Your task to perform on an android device: turn on translation in the chrome app Image 0: 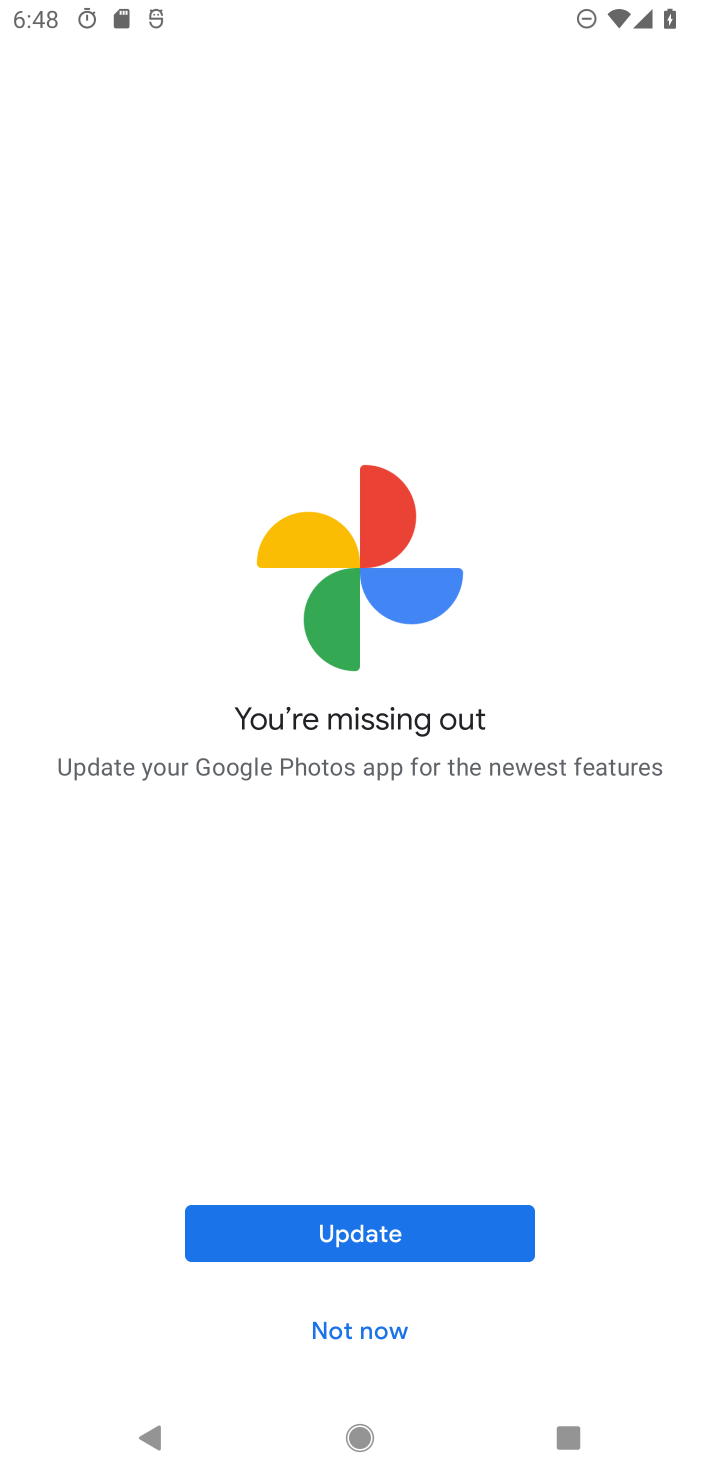
Step 0: press home button
Your task to perform on an android device: turn on translation in the chrome app Image 1: 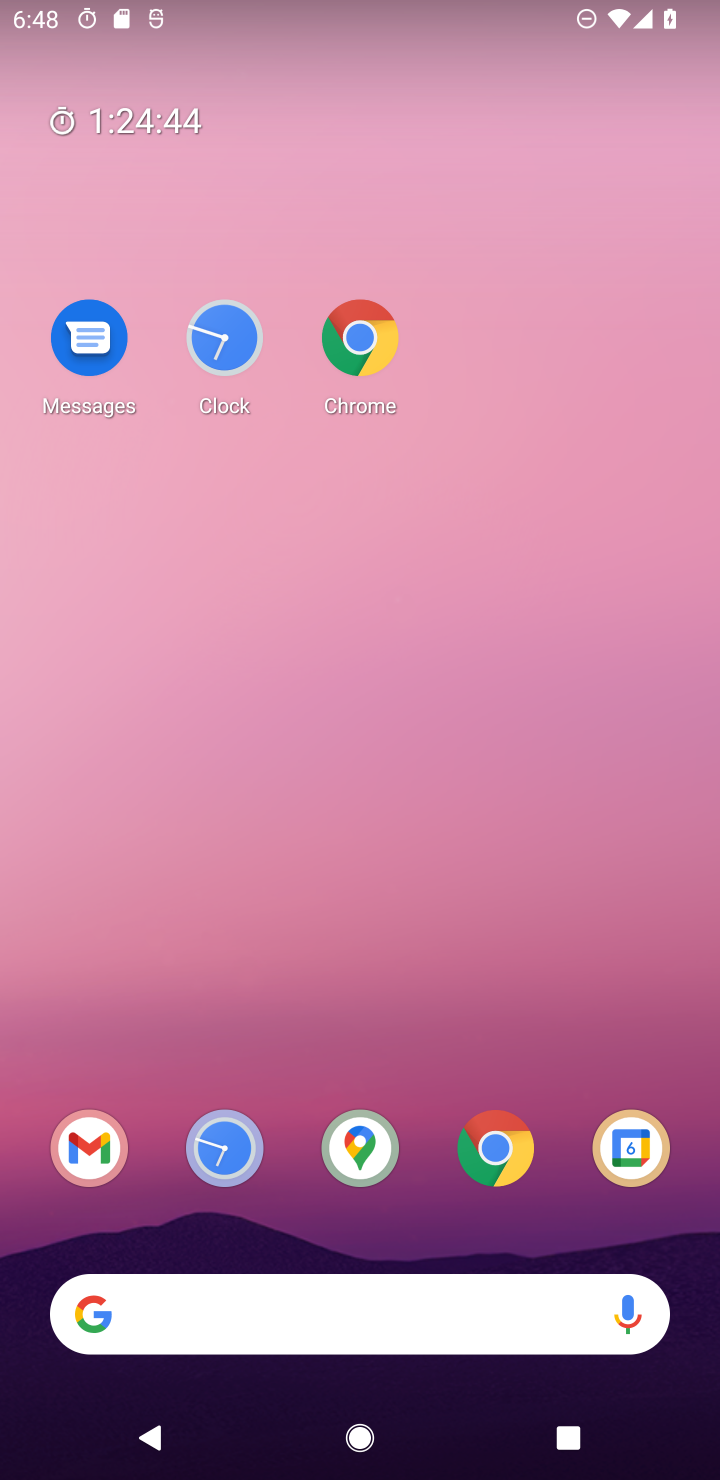
Step 1: drag from (425, 1219) to (386, 284)
Your task to perform on an android device: turn on translation in the chrome app Image 2: 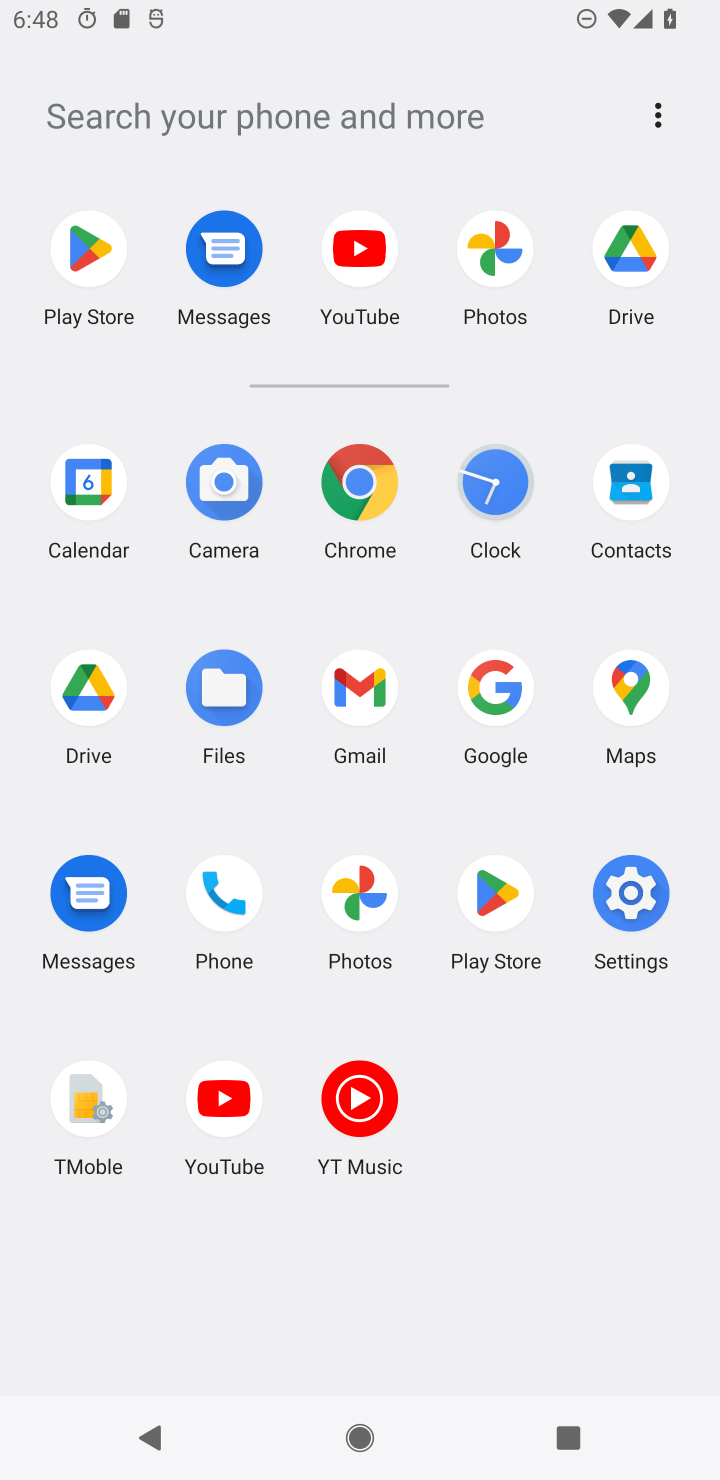
Step 2: click (351, 476)
Your task to perform on an android device: turn on translation in the chrome app Image 3: 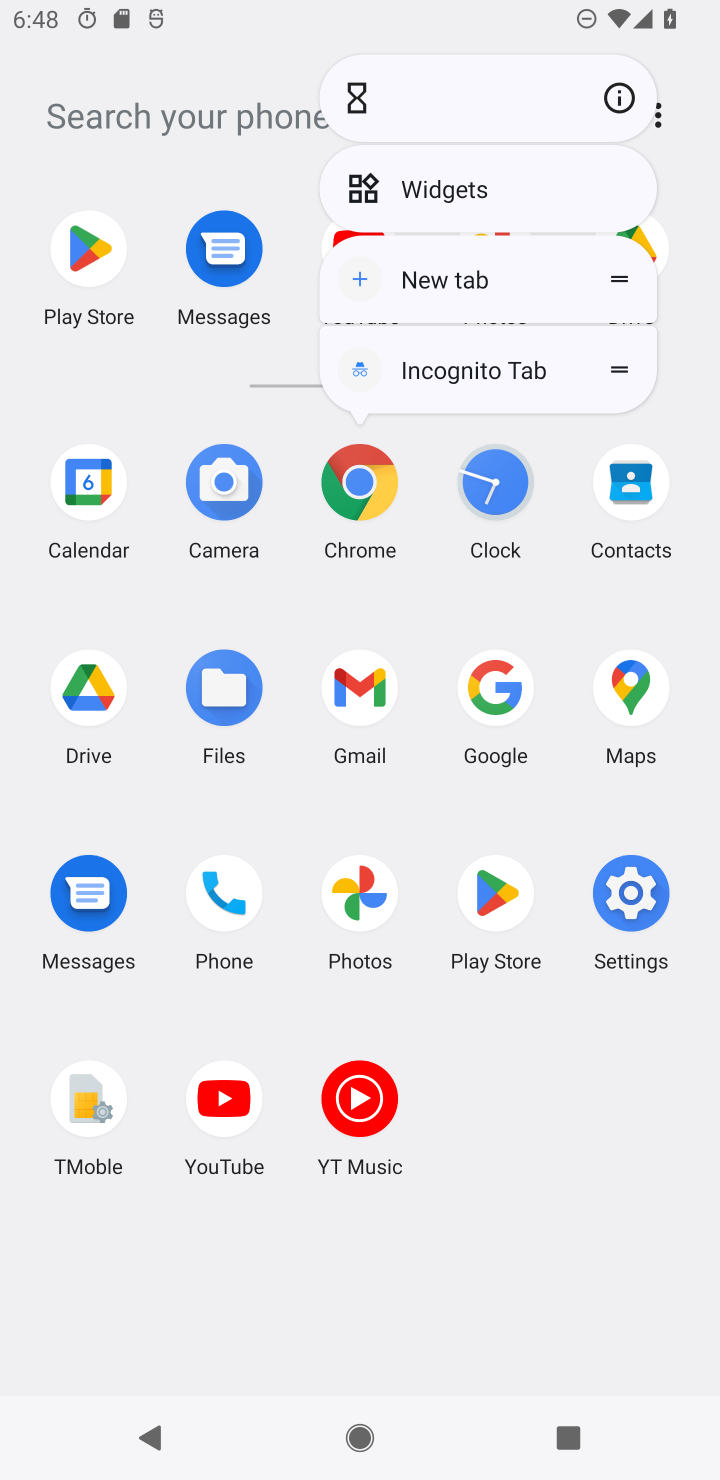
Step 3: click (616, 101)
Your task to perform on an android device: turn on translation in the chrome app Image 4: 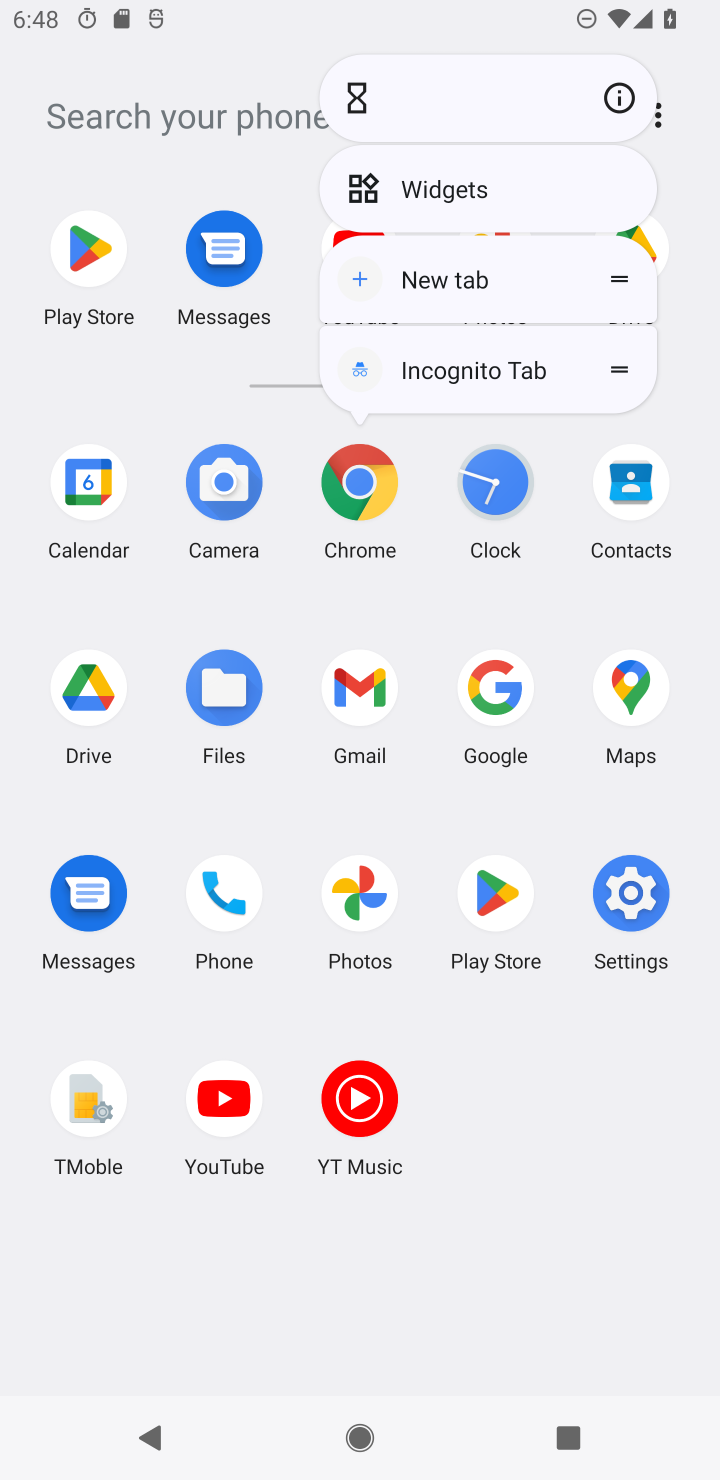
Step 4: click (604, 84)
Your task to perform on an android device: turn on translation in the chrome app Image 5: 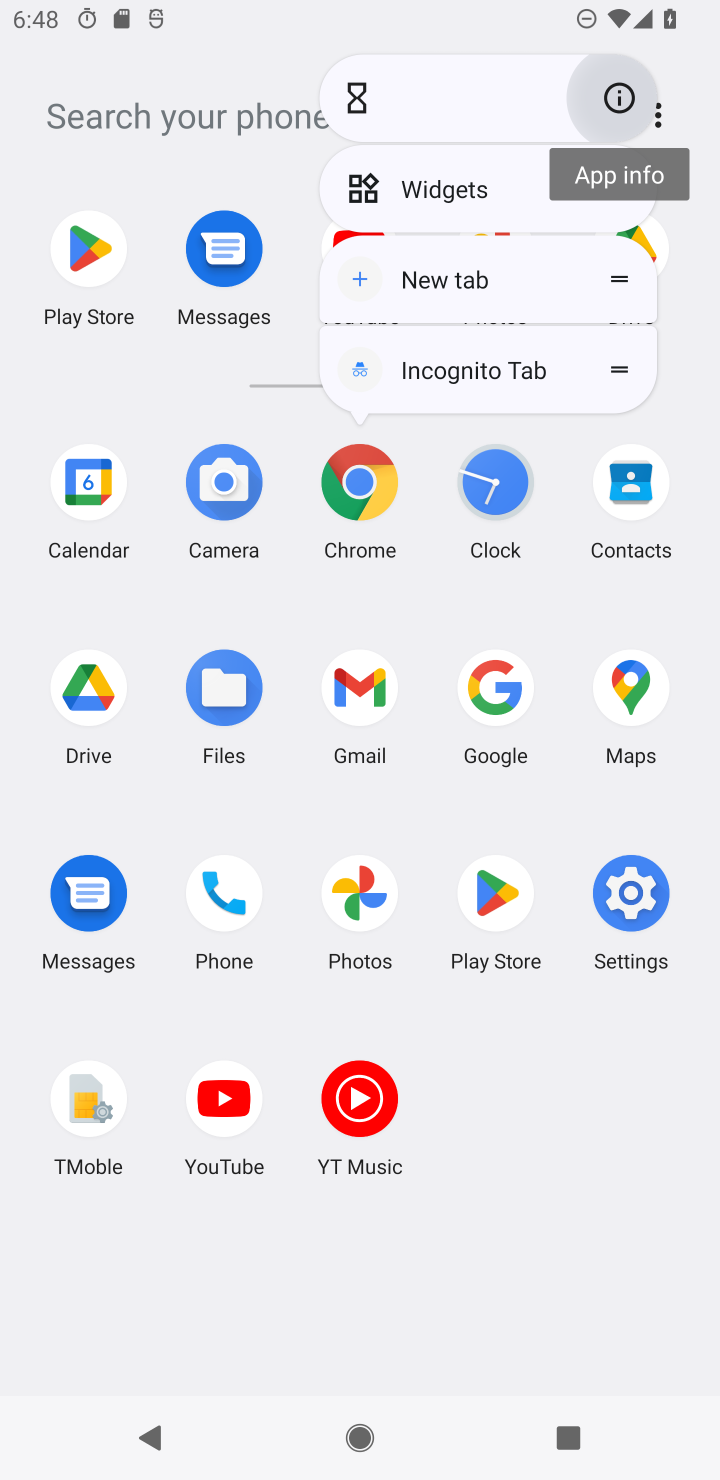
Step 5: click (604, 84)
Your task to perform on an android device: turn on translation in the chrome app Image 6: 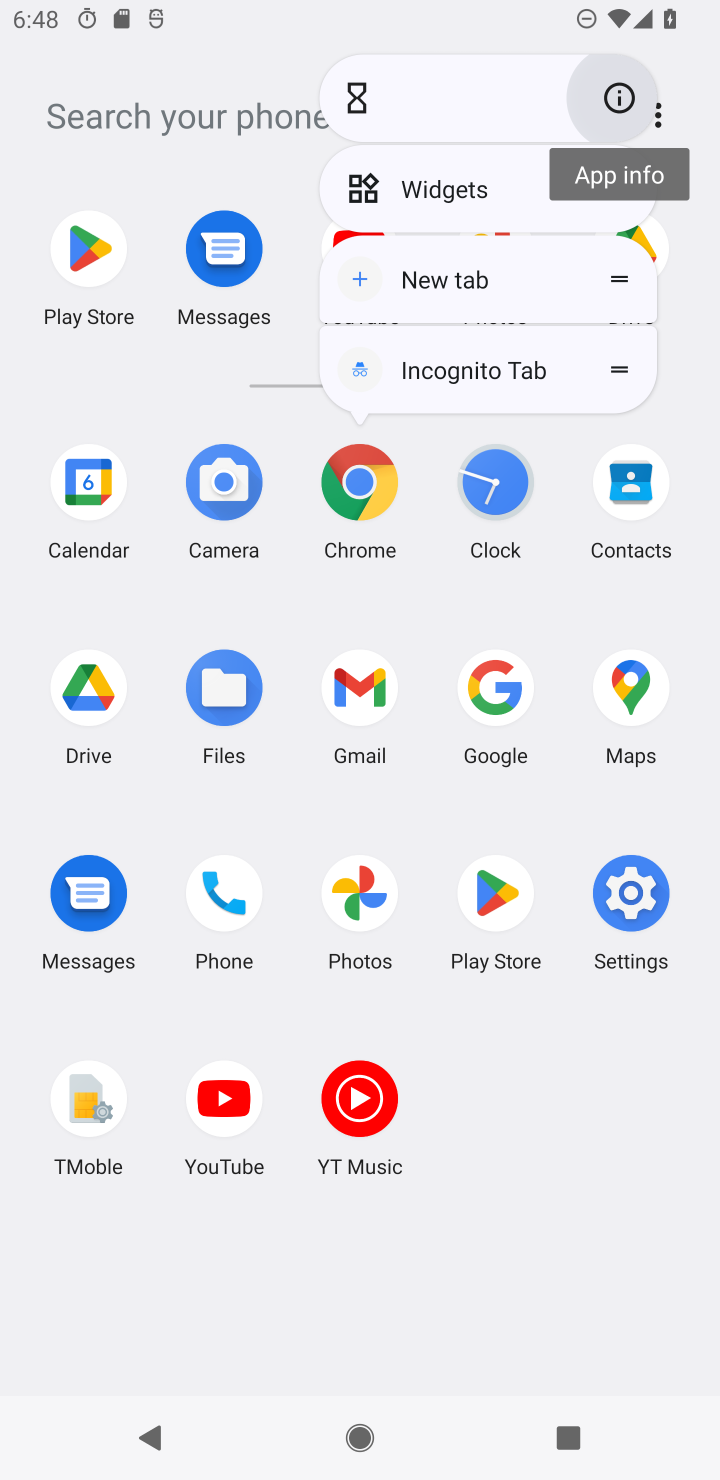
Step 6: click (604, 84)
Your task to perform on an android device: turn on translation in the chrome app Image 7: 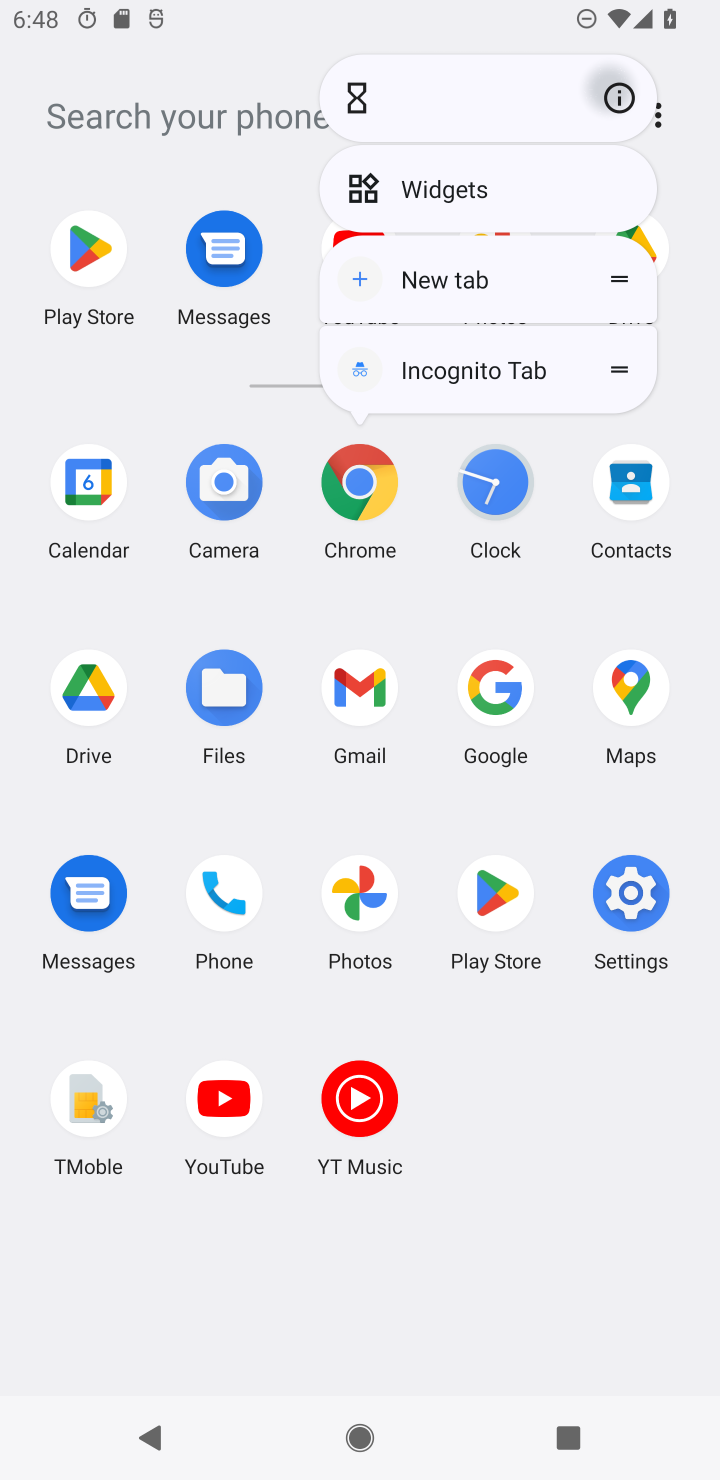
Step 7: click (604, 84)
Your task to perform on an android device: turn on translation in the chrome app Image 8: 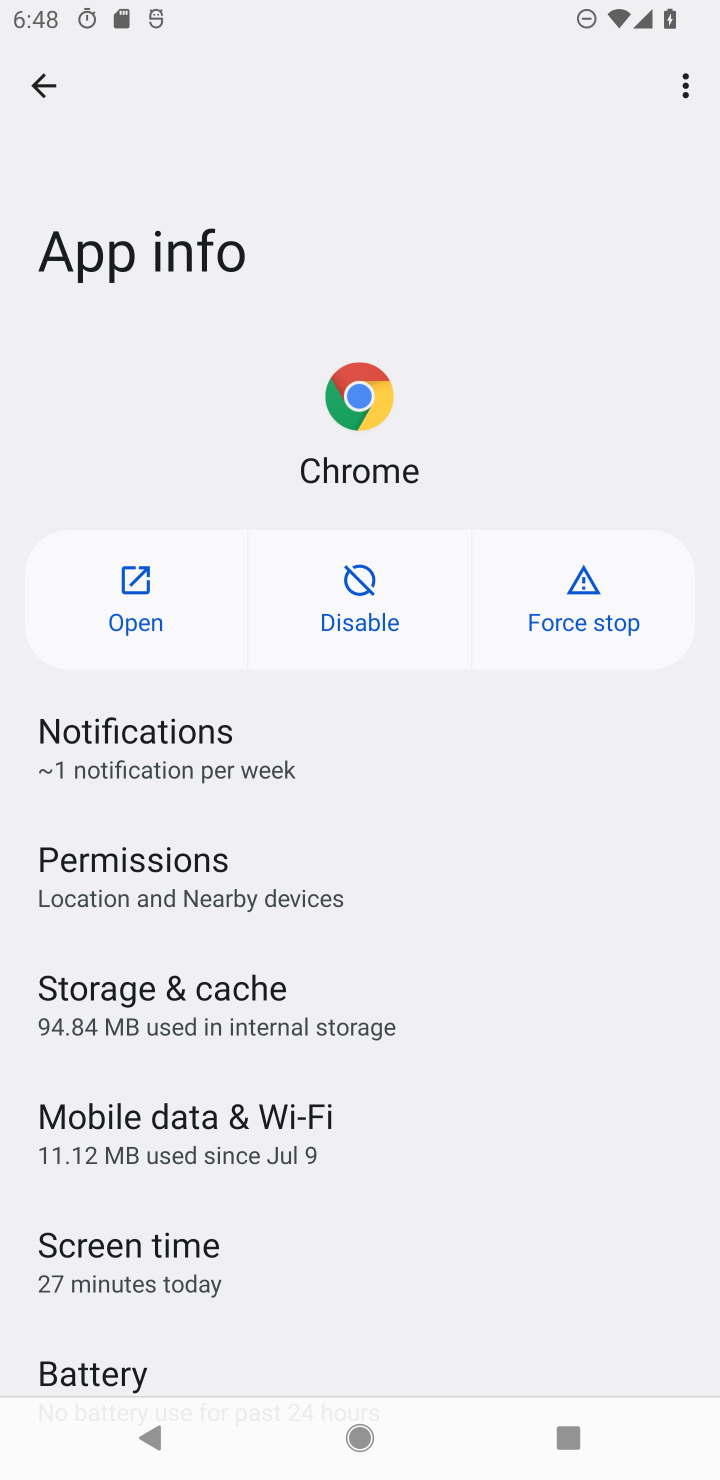
Step 8: click (129, 593)
Your task to perform on an android device: turn on translation in the chrome app Image 9: 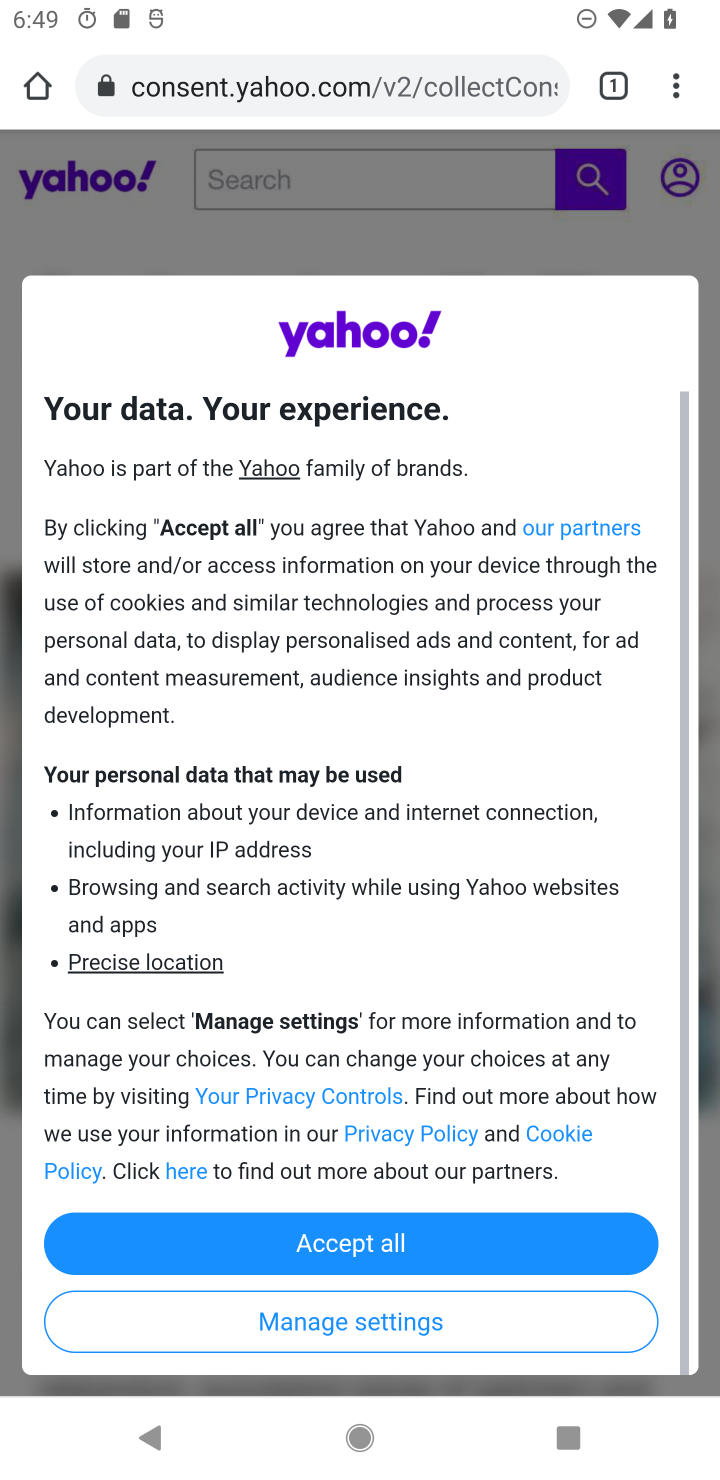
Step 9: drag from (671, 86) to (472, 1161)
Your task to perform on an android device: turn on translation in the chrome app Image 10: 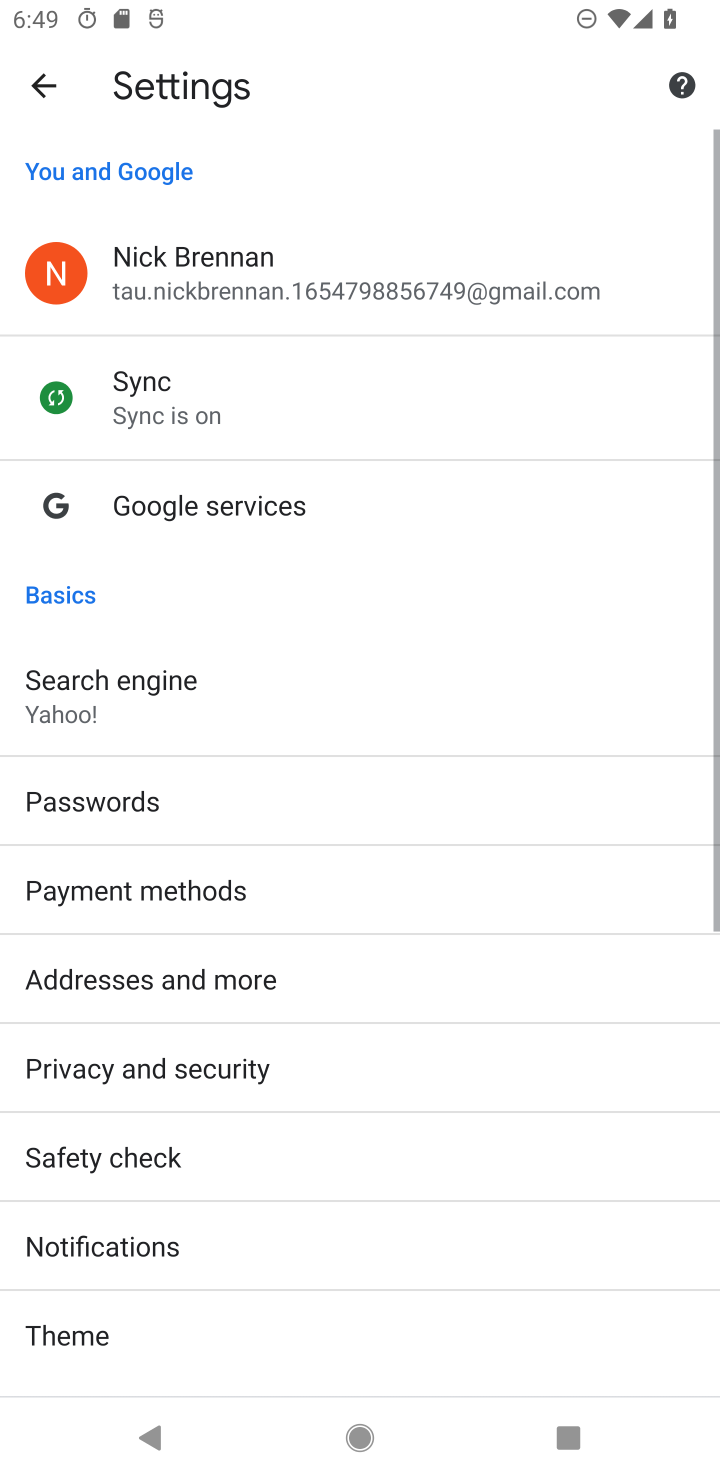
Step 10: drag from (205, 1221) to (304, 188)
Your task to perform on an android device: turn on translation in the chrome app Image 11: 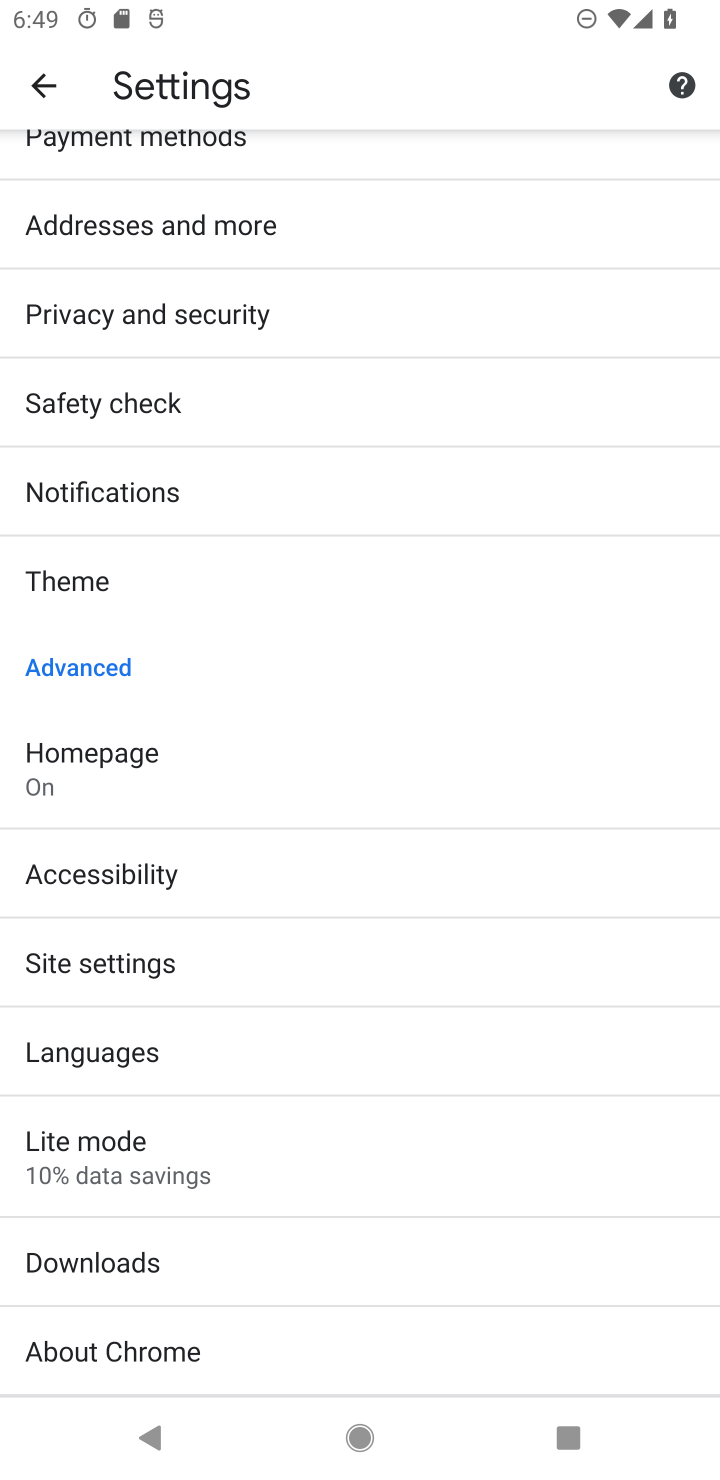
Step 11: click (255, 1047)
Your task to perform on an android device: turn on translation in the chrome app Image 12: 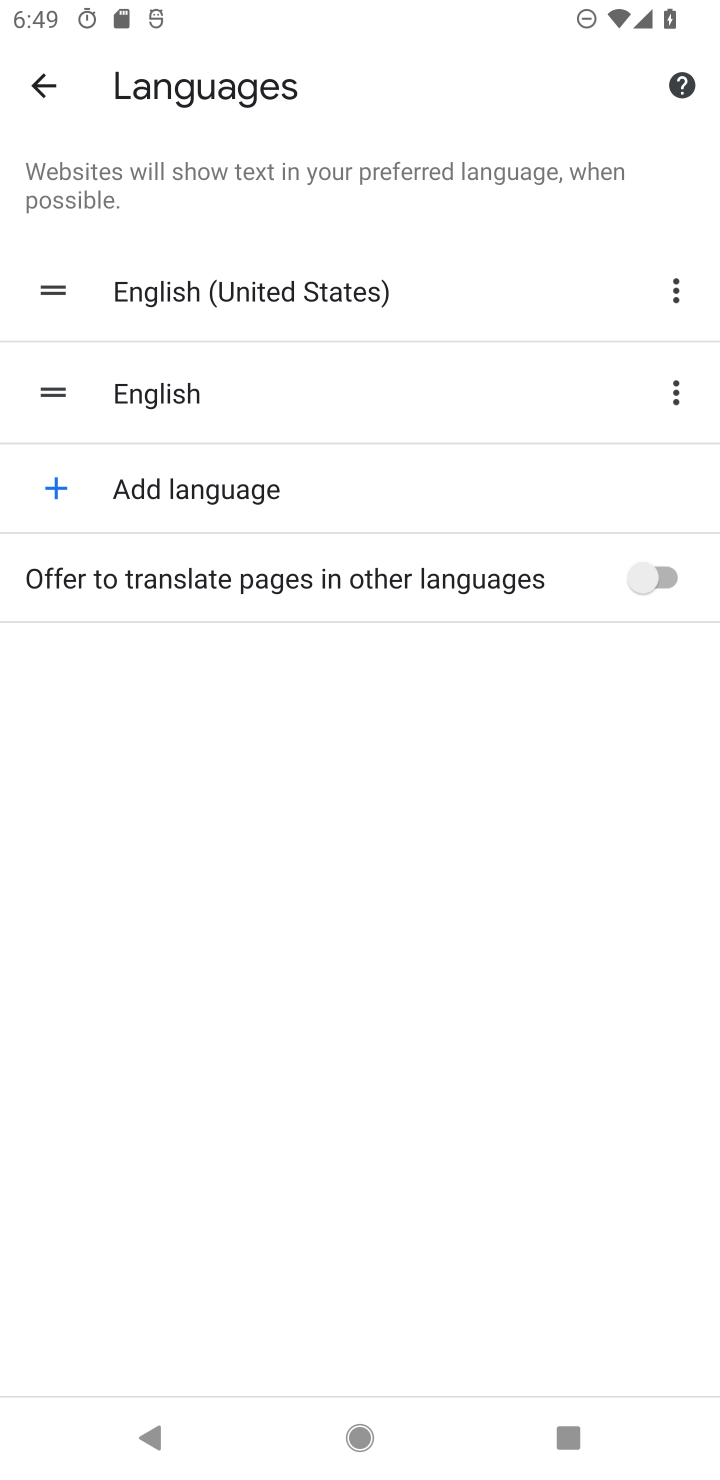
Step 12: click (569, 571)
Your task to perform on an android device: turn on translation in the chrome app Image 13: 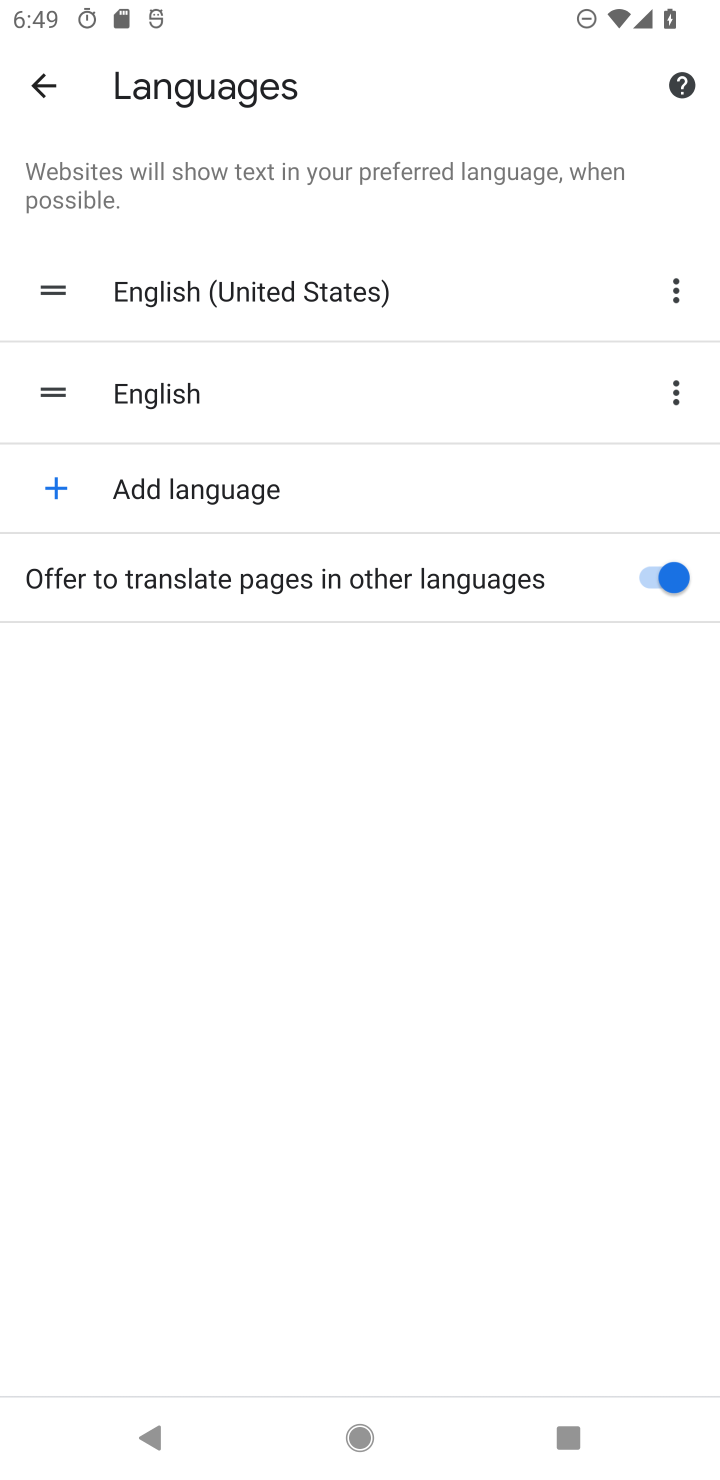
Step 13: task complete